Your task to perform on an android device: turn on priority inbox in the gmail app Image 0: 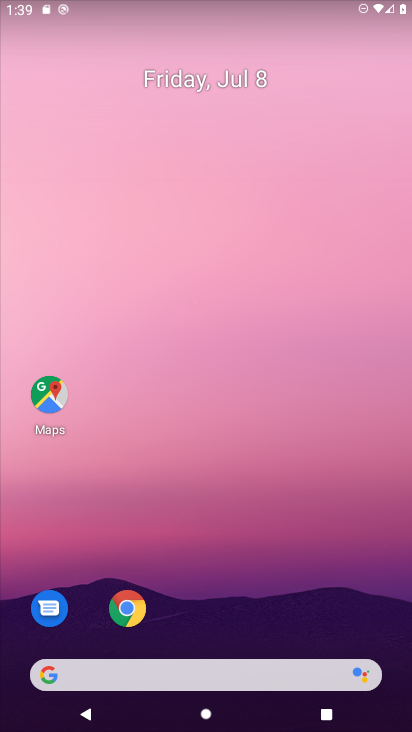
Step 0: drag from (319, 547) to (289, 330)
Your task to perform on an android device: turn on priority inbox in the gmail app Image 1: 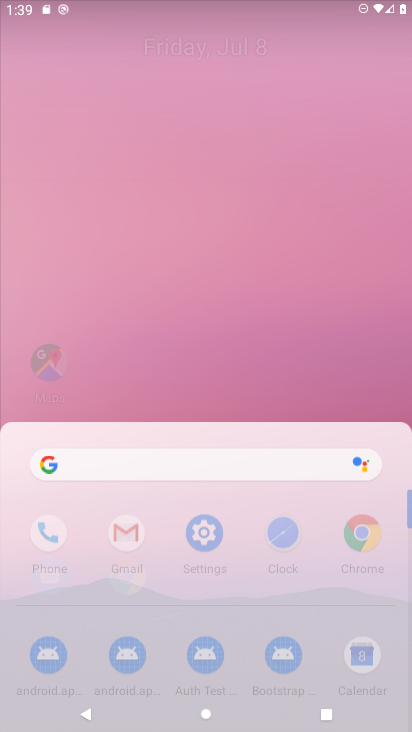
Step 1: click (289, 330)
Your task to perform on an android device: turn on priority inbox in the gmail app Image 2: 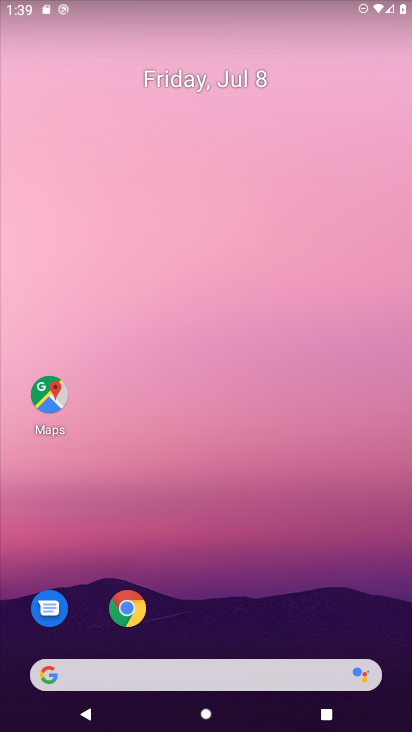
Step 2: drag from (278, 497) to (245, 225)
Your task to perform on an android device: turn on priority inbox in the gmail app Image 3: 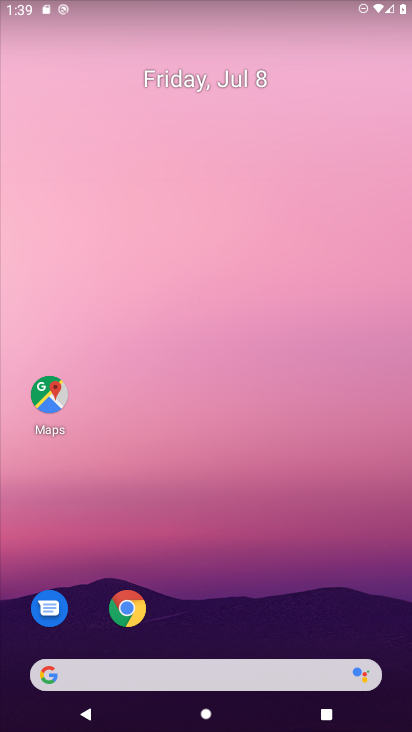
Step 3: click (245, 225)
Your task to perform on an android device: turn on priority inbox in the gmail app Image 4: 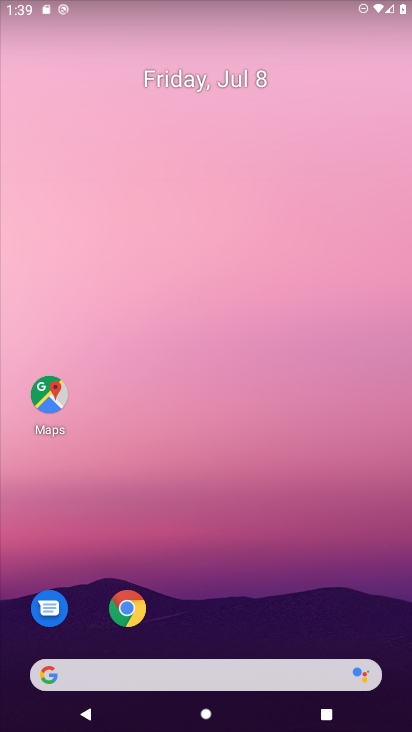
Step 4: click (245, 225)
Your task to perform on an android device: turn on priority inbox in the gmail app Image 5: 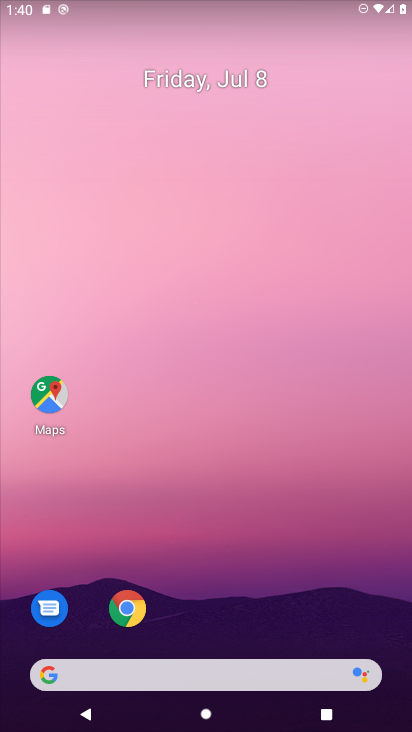
Step 5: task complete